Your task to perform on an android device: Open ESPN.com Image 0: 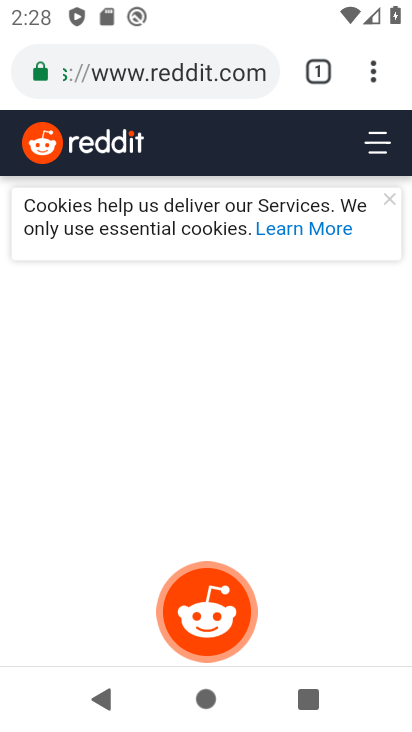
Step 0: press home button
Your task to perform on an android device: Open ESPN.com Image 1: 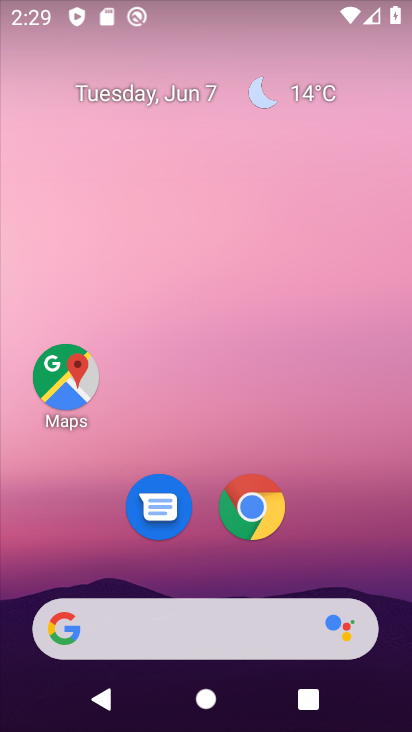
Step 1: click (242, 502)
Your task to perform on an android device: Open ESPN.com Image 2: 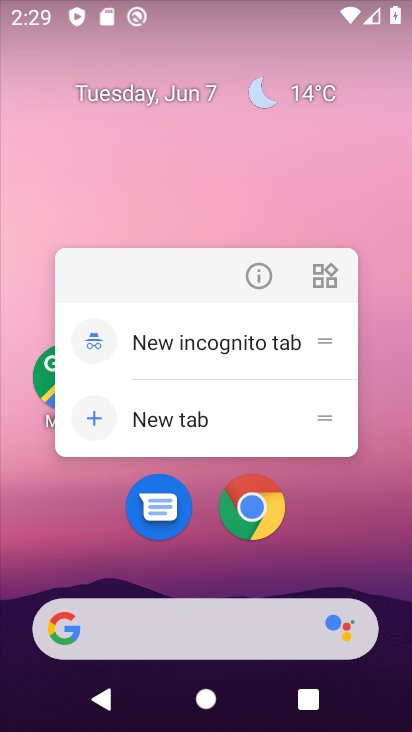
Step 2: click (245, 514)
Your task to perform on an android device: Open ESPN.com Image 3: 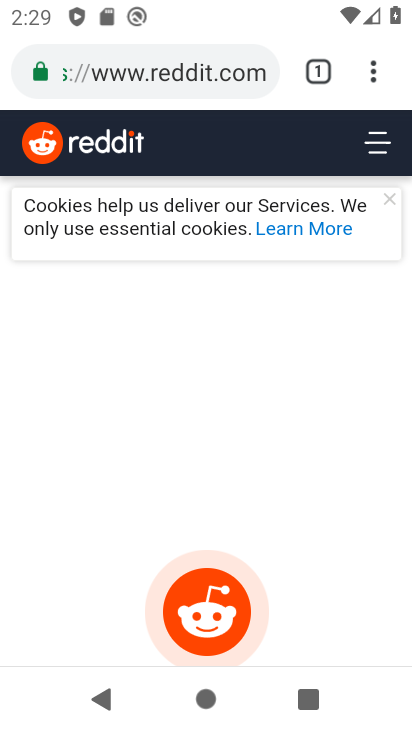
Step 3: click (230, 68)
Your task to perform on an android device: Open ESPN.com Image 4: 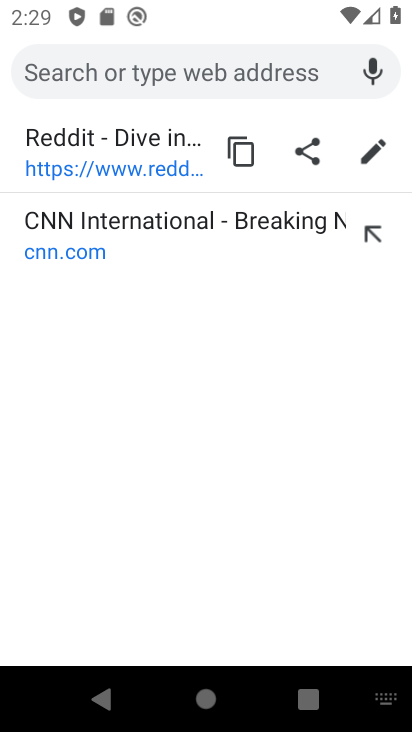
Step 4: type "espn.com"
Your task to perform on an android device: Open ESPN.com Image 5: 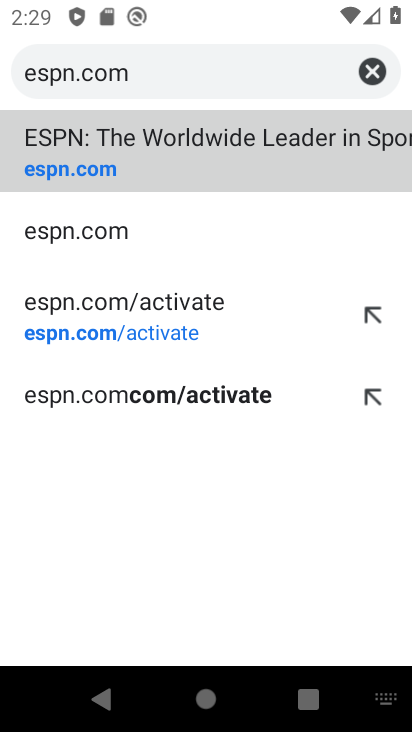
Step 5: click (75, 174)
Your task to perform on an android device: Open ESPN.com Image 6: 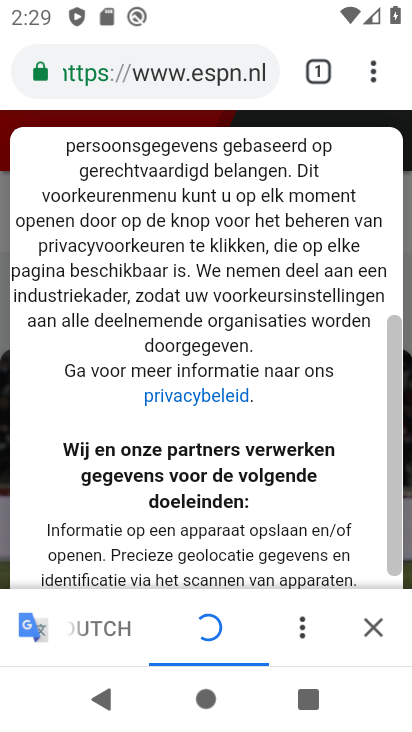
Step 6: task complete